Your task to perform on an android device: What's on my calendar today? Image 0: 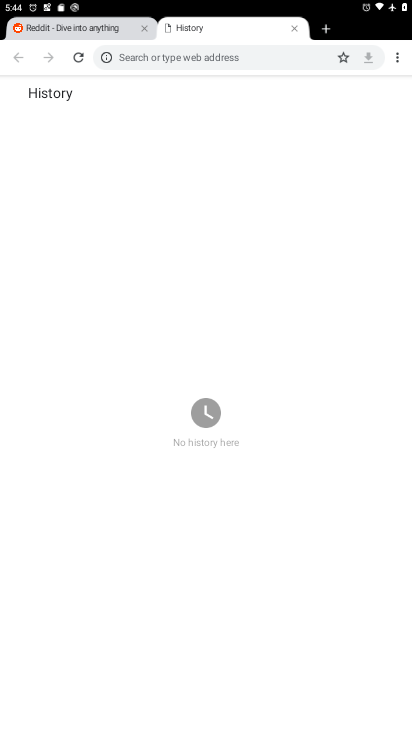
Step 0: press home button
Your task to perform on an android device: What's on my calendar today? Image 1: 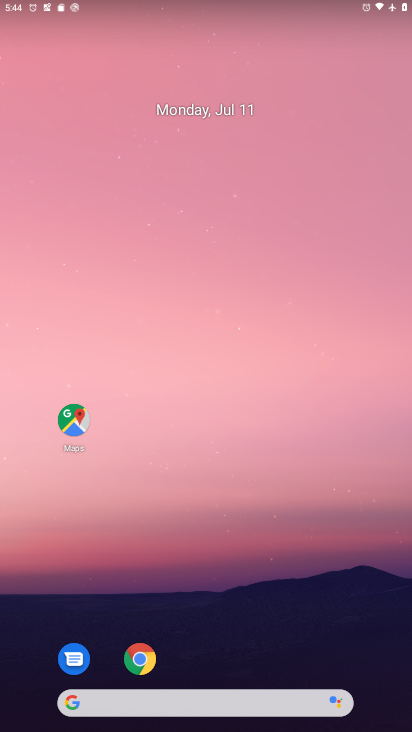
Step 1: drag from (385, 646) to (323, 107)
Your task to perform on an android device: What's on my calendar today? Image 2: 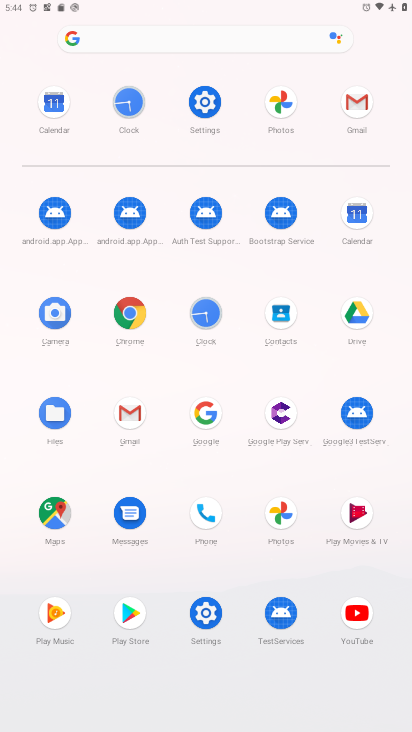
Step 2: click (353, 209)
Your task to perform on an android device: What's on my calendar today? Image 3: 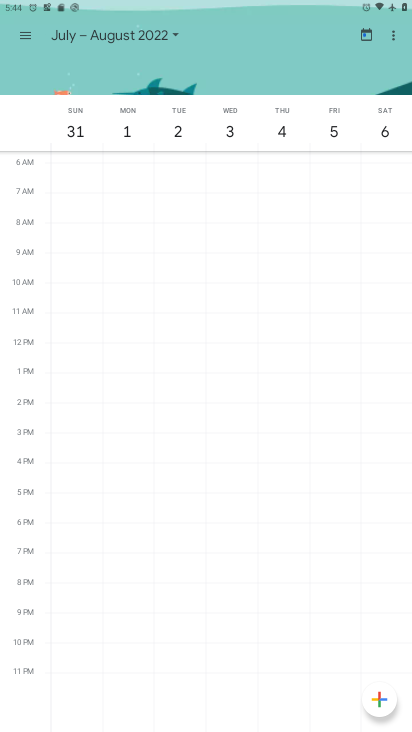
Step 3: click (26, 36)
Your task to perform on an android device: What's on my calendar today? Image 4: 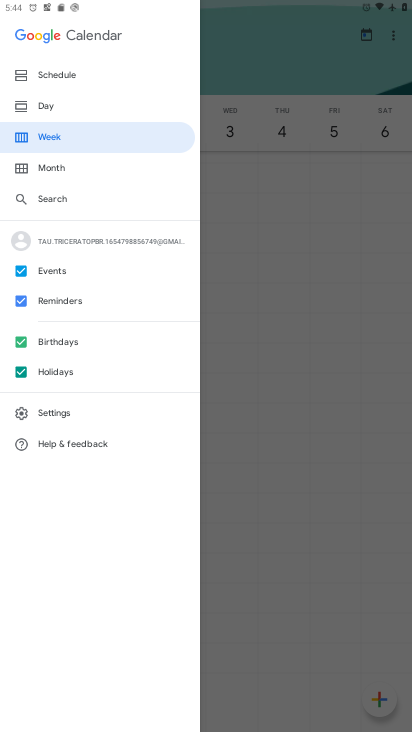
Step 4: click (50, 103)
Your task to perform on an android device: What's on my calendar today? Image 5: 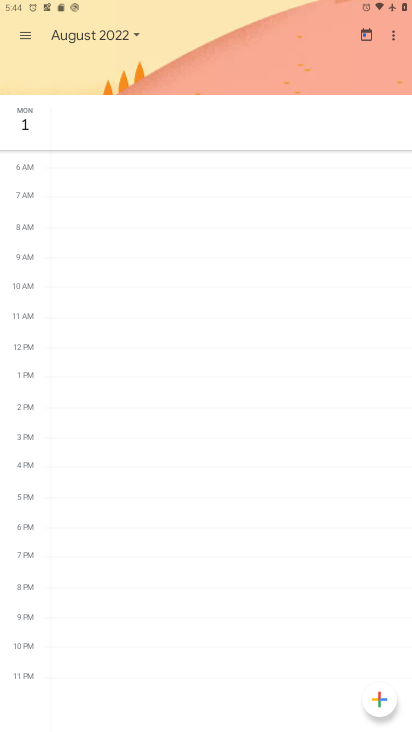
Step 5: click (127, 36)
Your task to perform on an android device: What's on my calendar today? Image 6: 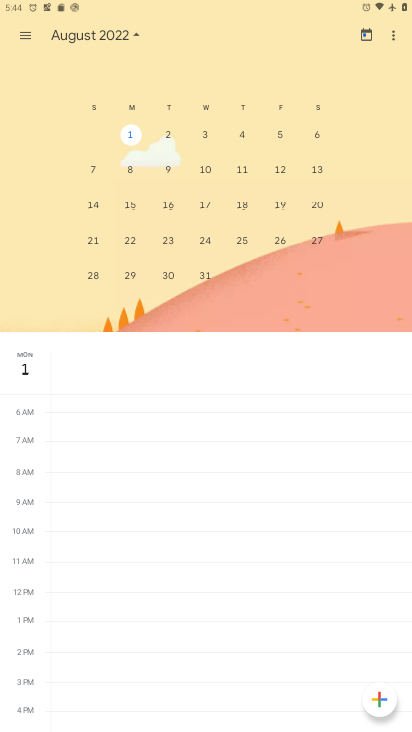
Step 6: drag from (68, 232) to (368, 234)
Your task to perform on an android device: What's on my calendar today? Image 7: 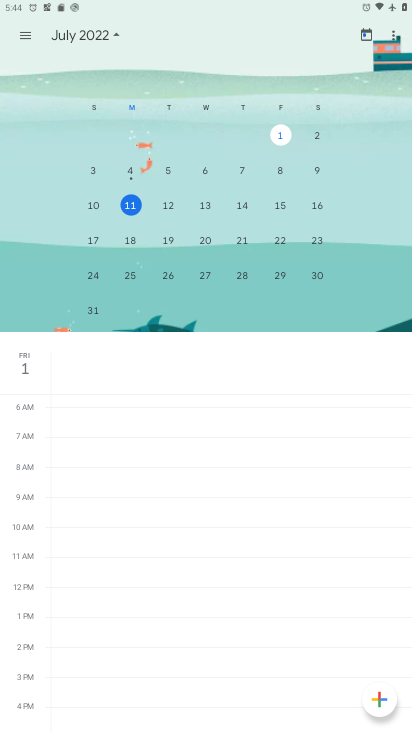
Step 7: click (130, 203)
Your task to perform on an android device: What's on my calendar today? Image 8: 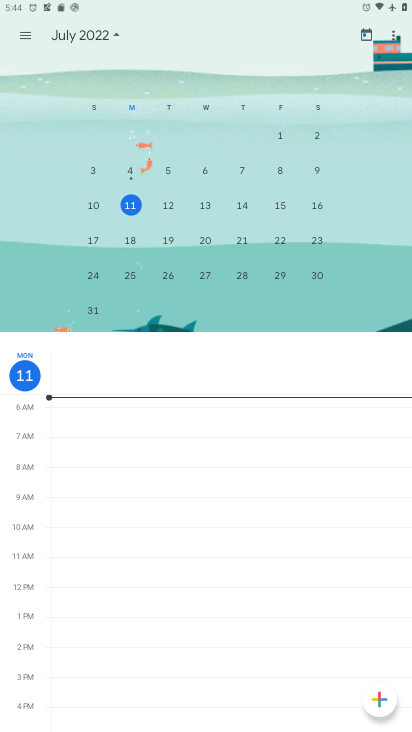
Step 8: task complete